Your task to perform on an android device: turn pop-ups off in chrome Image 0: 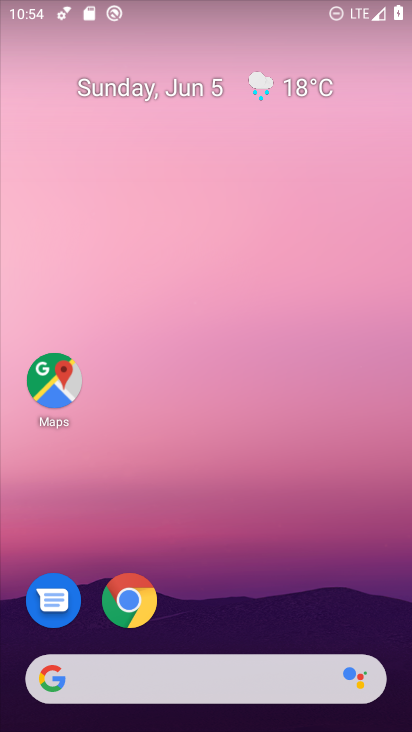
Step 0: click (120, 590)
Your task to perform on an android device: turn pop-ups off in chrome Image 1: 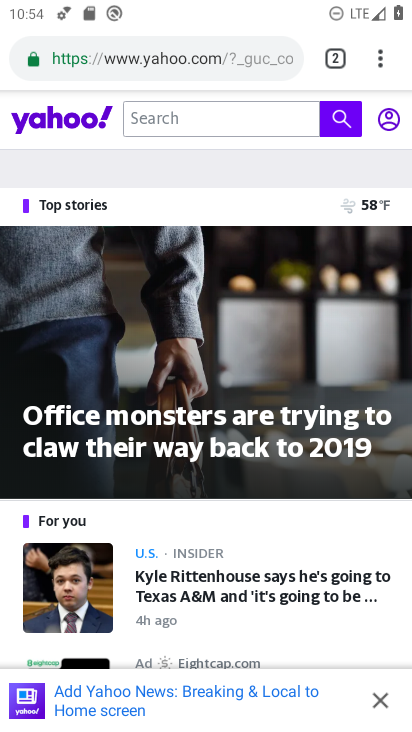
Step 1: drag from (374, 56) to (212, 639)
Your task to perform on an android device: turn pop-ups off in chrome Image 2: 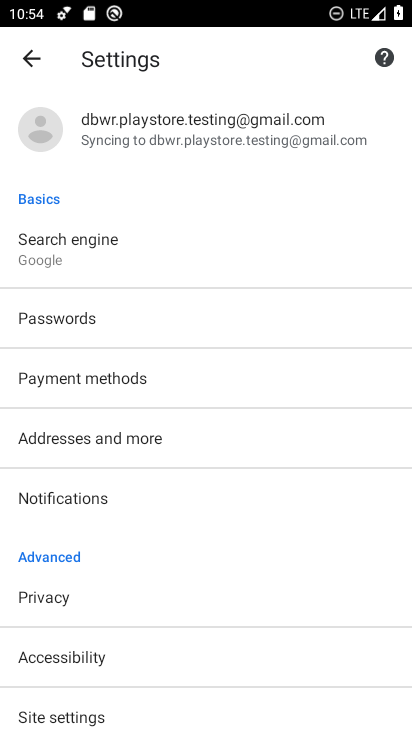
Step 2: drag from (182, 539) to (158, 241)
Your task to perform on an android device: turn pop-ups off in chrome Image 3: 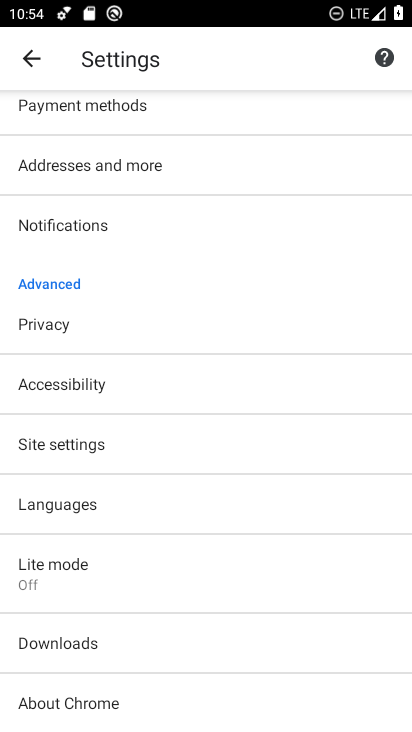
Step 3: drag from (222, 629) to (219, 403)
Your task to perform on an android device: turn pop-ups off in chrome Image 4: 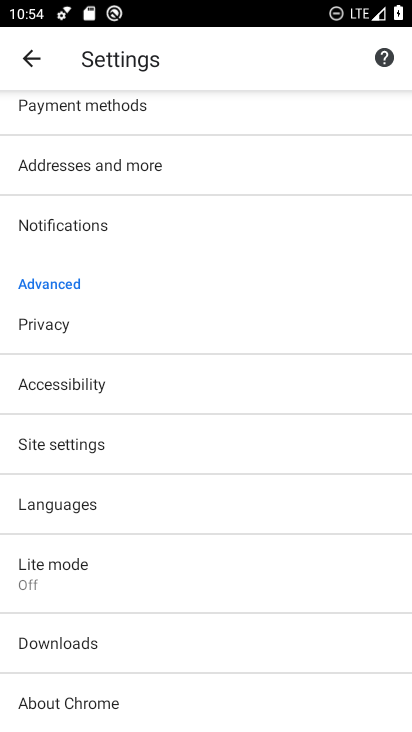
Step 4: click (109, 458)
Your task to perform on an android device: turn pop-ups off in chrome Image 5: 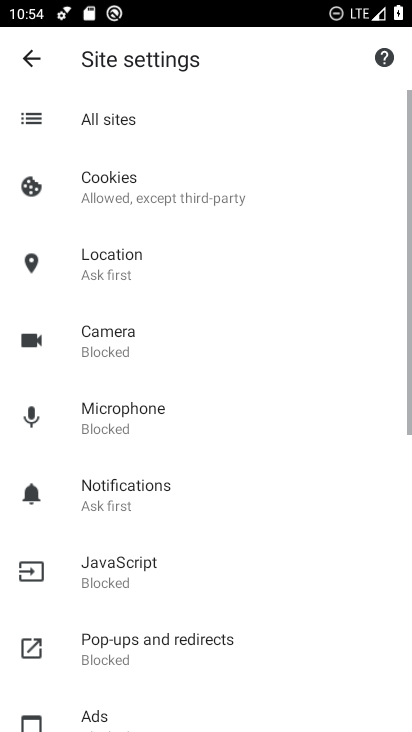
Step 5: drag from (178, 596) to (183, 286)
Your task to perform on an android device: turn pop-ups off in chrome Image 6: 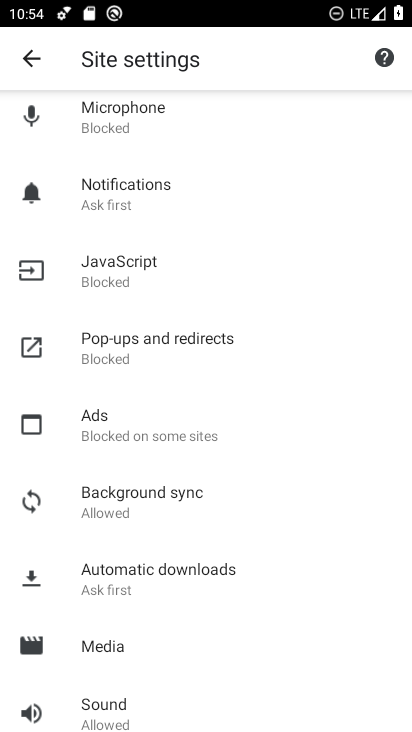
Step 6: click (180, 339)
Your task to perform on an android device: turn pop-ups off in chrome Image 7: 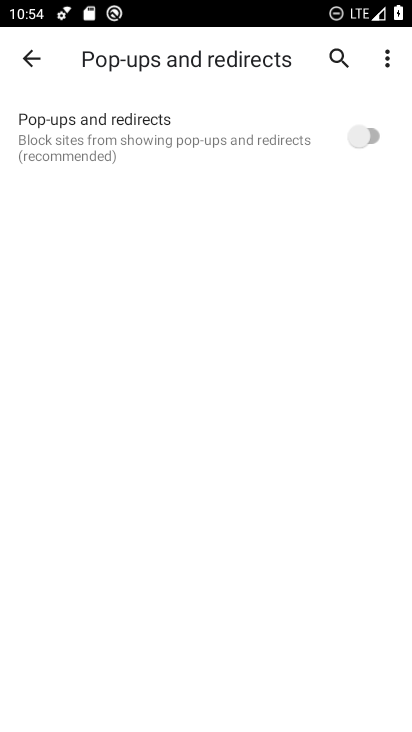
Step 7: task complete